Your task to perform on an android device: Open the Play Movies app and select the watchlist tab. Image 0: 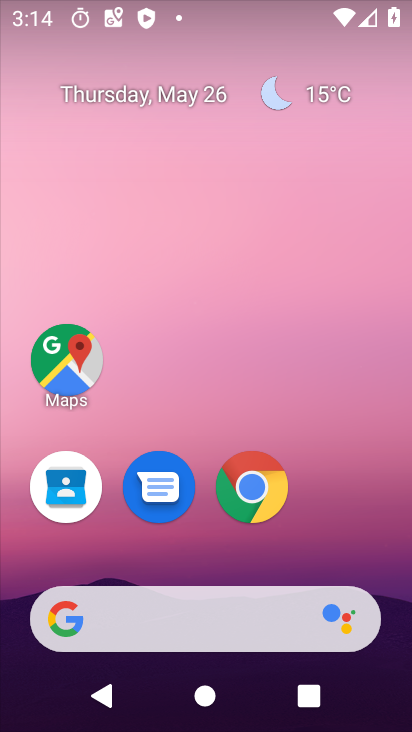
Step 0: drag from (203, 562) to (205, 153)
Your task to perform on an android device: Open the Play Movies app and select the watchlist tab. Image 1: 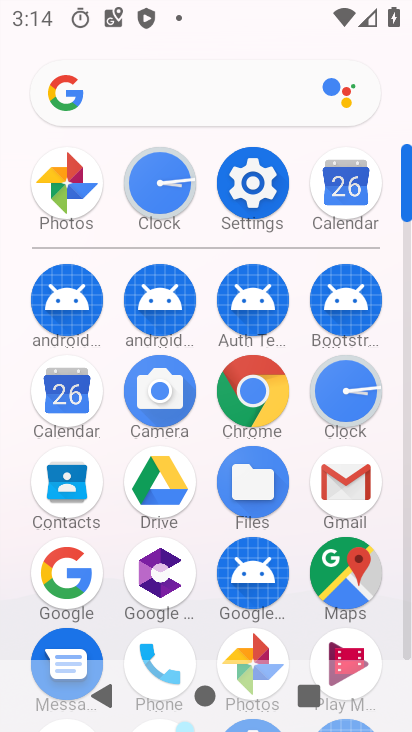
Step 1: click (338, 649)
Your task to perform on an android device: Open the Play Movies app and select the watchlist tab. Image 2: 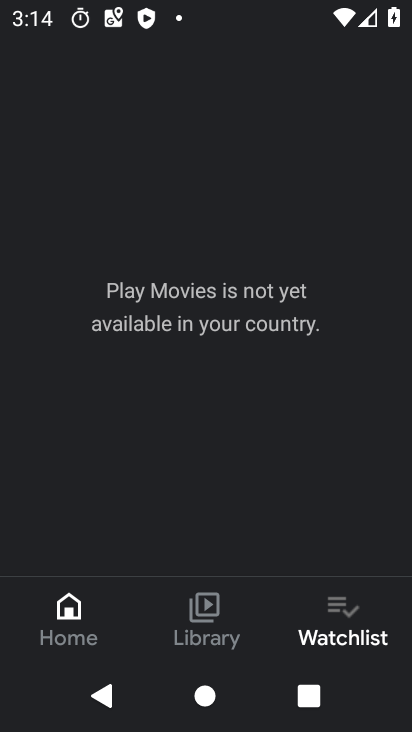
Step 2: click (335, 604)
Your task to perform on an android device: Open the Play Movies app and select the watchlist tab. Image 3: 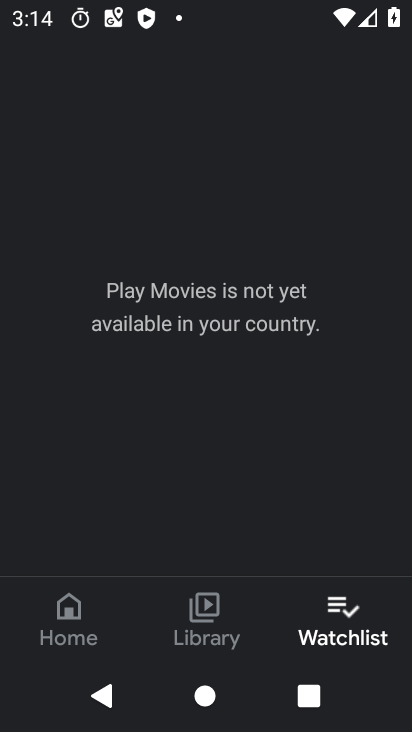
Step 3: task complete